Your task to perform on an android device: Show me recent news Image 0: 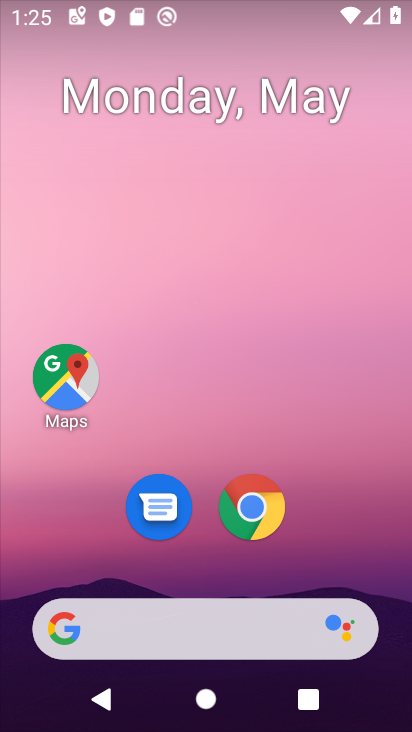
Step 0: drag from (5, 271) to (399, 475)
Your task to perform on an android device: Show me recent news Image 1: 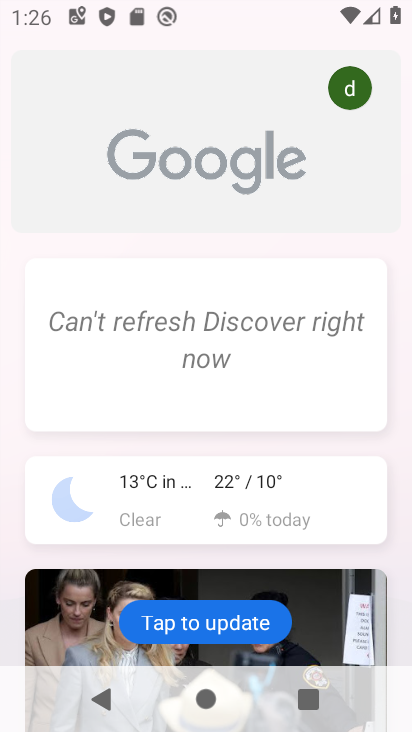
Step 1: task complete